Your task to perform on an android device: search for starred emails in the gmail app Image 0: 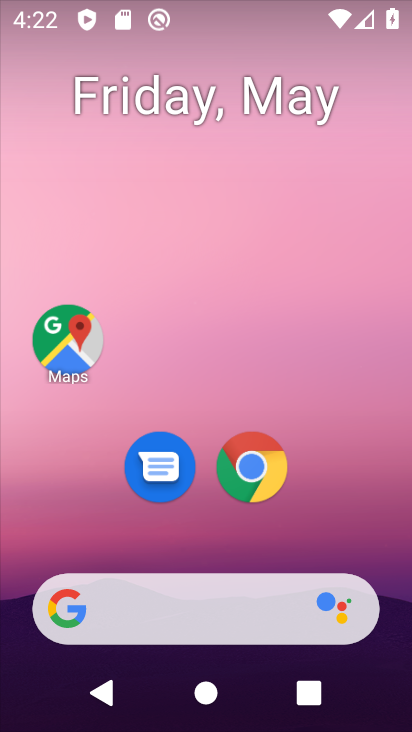
Step 0: drag from (340, 542) to (265, 104)
Your task to perform on an android device: search for starred emails in the gmail app Image 1: 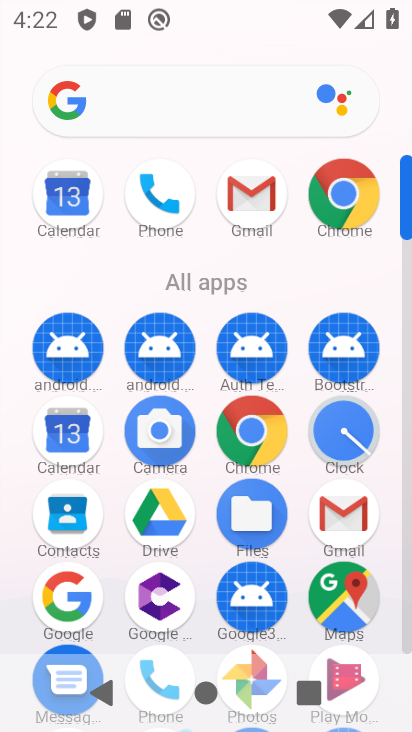
Step 1: click (242, 174)
Your task to perform on an android device: search for starred emails in the gmail app Image 2: 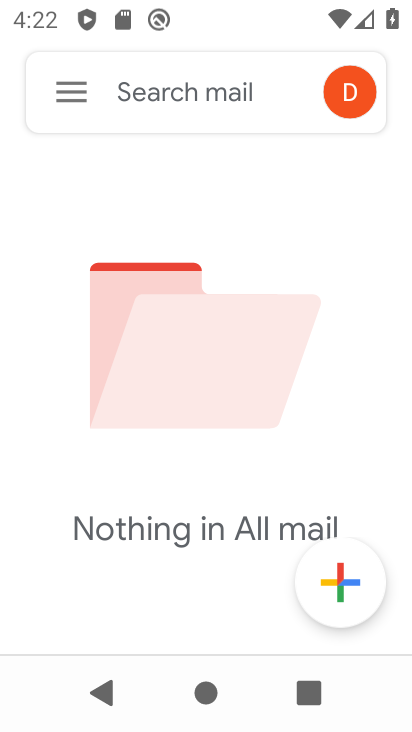
Step 2: click (77, 93)
Your task to perform on an android device: search for starred emails in the gmail app Image 3: 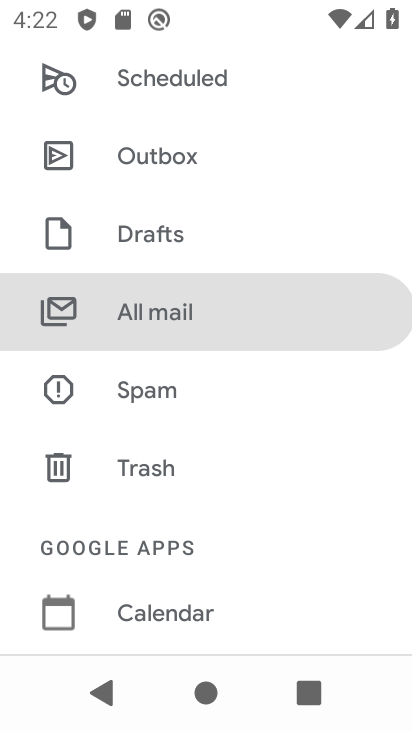
Step 3: drag from (125, 262) to (117, 595)
Your task to perform on an android device: search for starred emails in the gmail app Image 4: 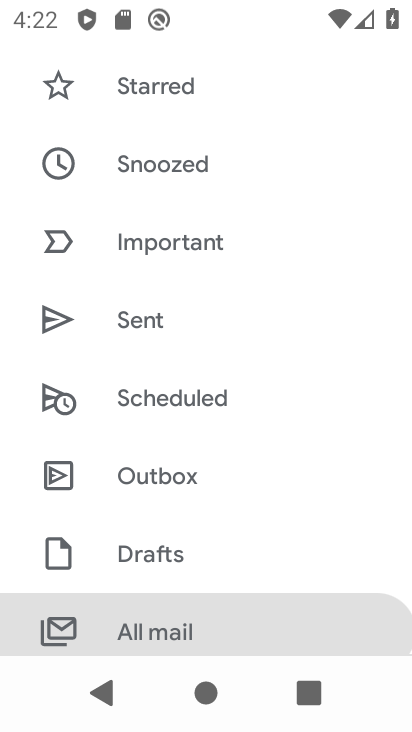
Step 4: click (144, 99)
Your task to perform on an android device: search for starred emails in the gmail app Image 5: 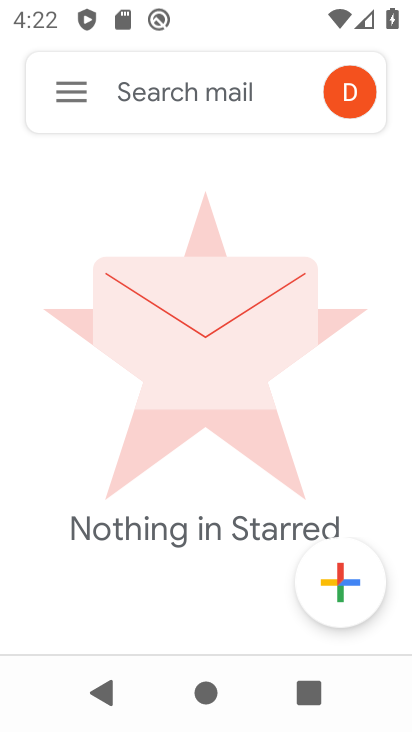
Step 5: task complete